Your task to perform on an android device: turn off location history Image 0: 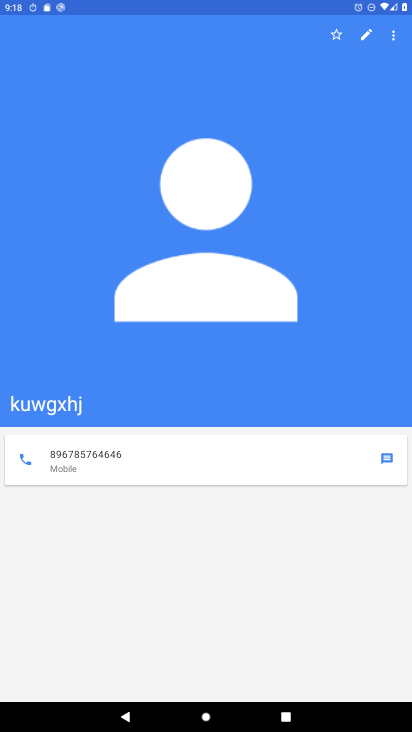
Step 0: press home button
Your task to perform on an android device: turn off location history Image 1: 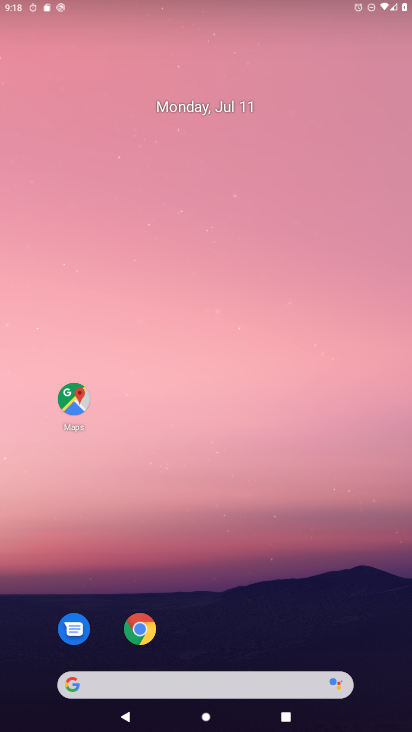
Step 1: drag from (246, 632) to (282, 268)
Your task to perform on an android device: turn off location history Image 2: 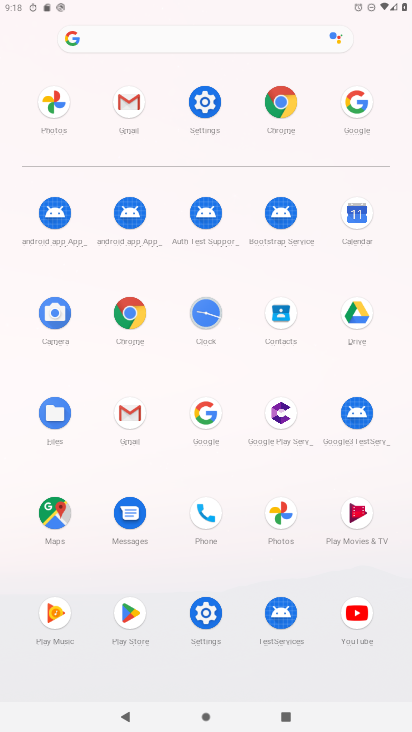
Step 2: click (209, 105)
Your task to perform on an android device: turn off location history Image 3: 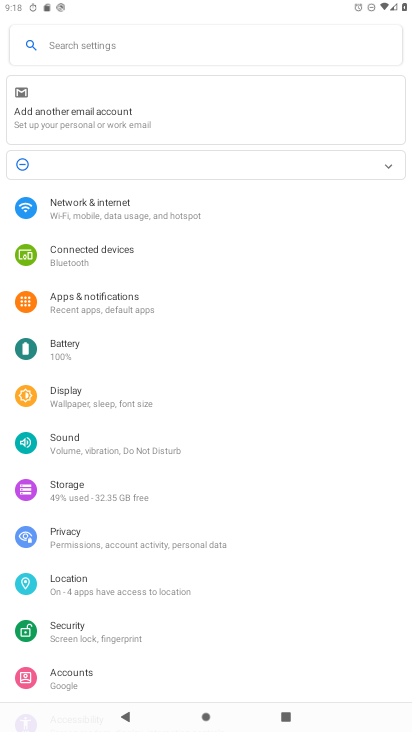
Step 3: click (98, 587)
Your task to perform on an android device: turn off location history Image 4: 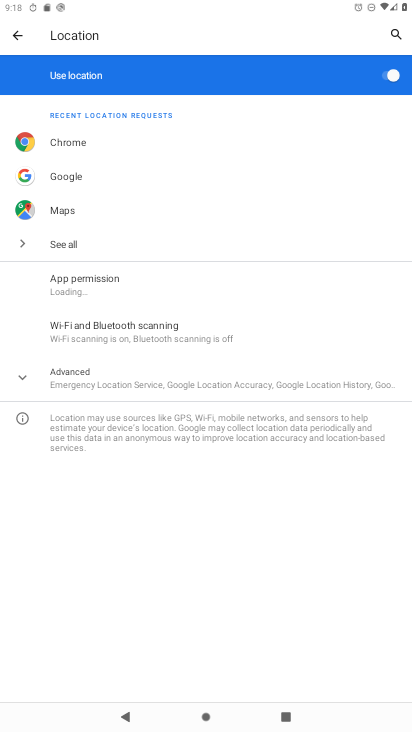
Step 4: click (91, 380)
Your task to perform on an android device: turn off location history Image 5: 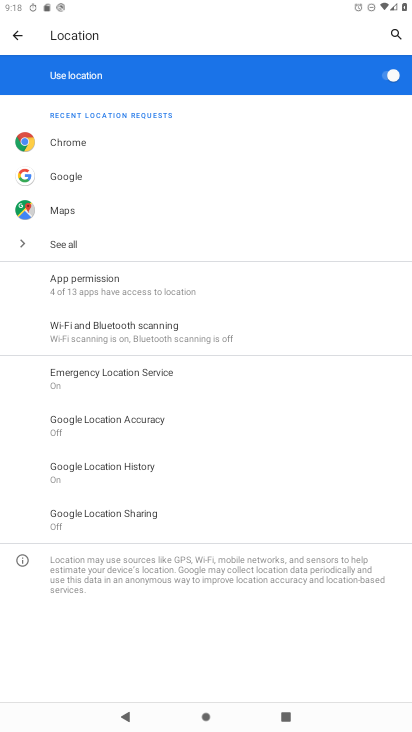
Step 5: click (143, 469)
Your task to perform on an android device: turn off location history Image 6: 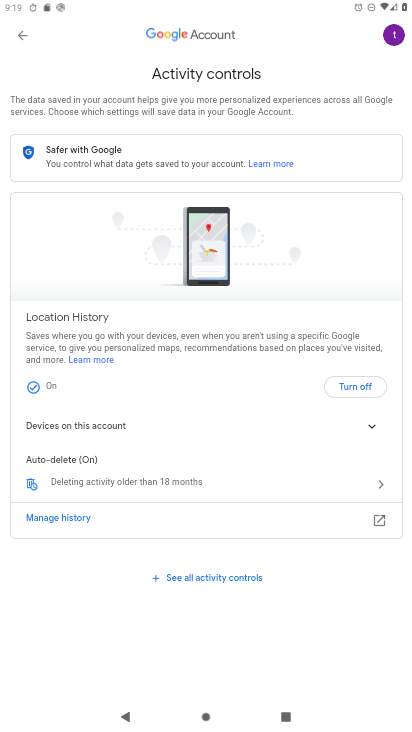
Step 6: click (357, 386)
Your task to perform on an android device: turn off location history Image 7: 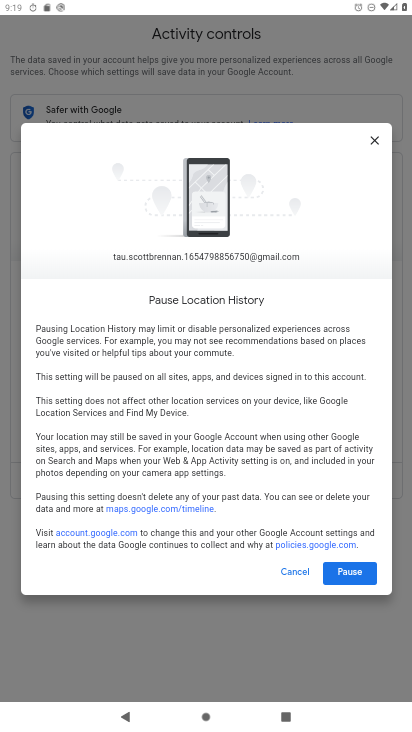
Step 7: click (356, 574)
Your task to perform on an android device: turn off location history Image 8: 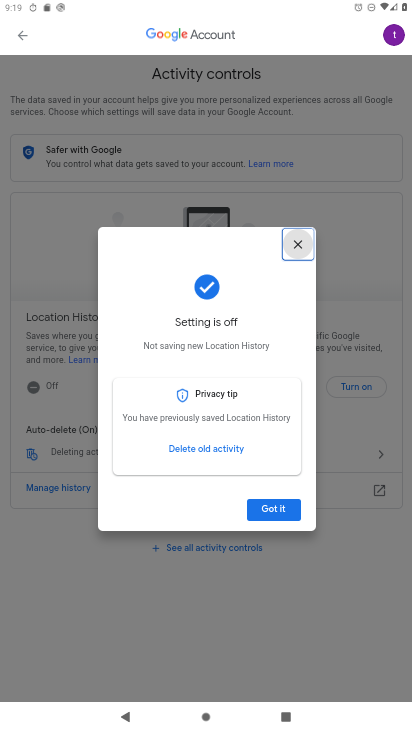
Step 8: click (270, 511)
Your task to perform on an android device: turn off location history Image 9: 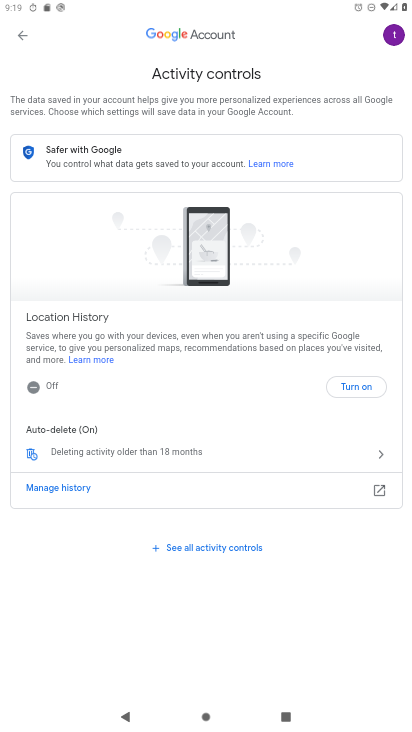
Step 9: task complete